Your task to perform on an android device: What's on my calendar today? Image 0: 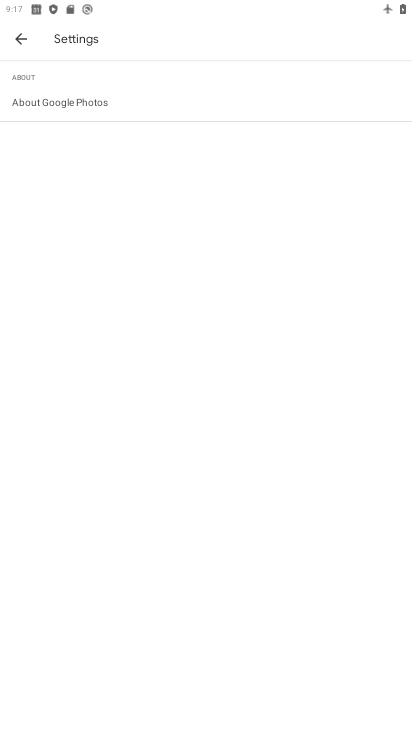
Step 0: press home button
Your task to perform on an android device: What's on my calendar today? Image 1: 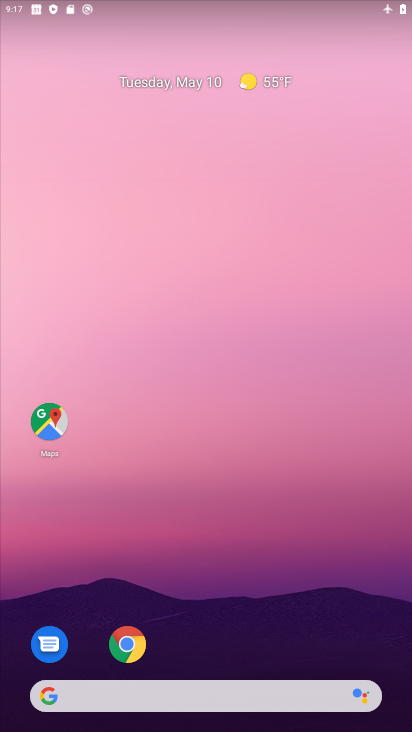
Step 1: drag from (260, 622) to (292, 236)
Your task to perform on an android device: What's on my calendar today? Image 2: 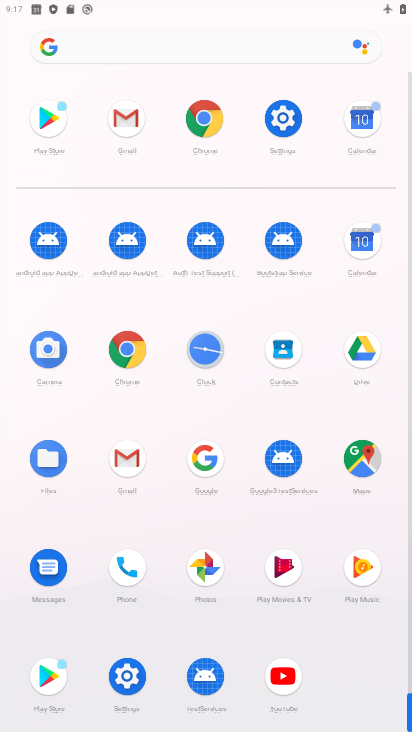
Step 2: click (354, 254)
Your task to perform on an android device: What's on my calendar today? Image 3: 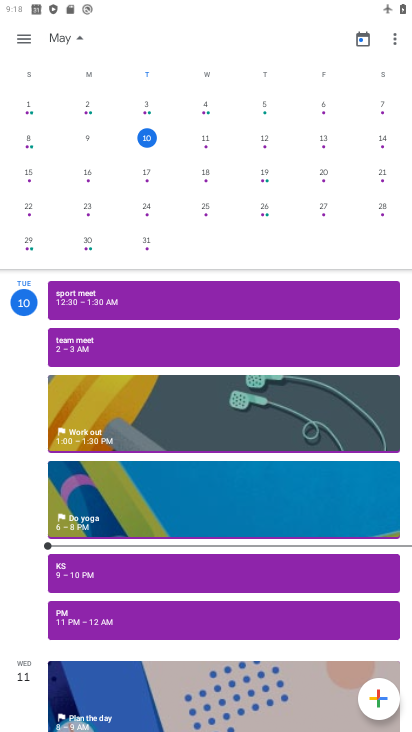
Step 3: task complete